Your task to perform on an android device: Open Google Chrome and click the shortcut for Amazon.com Image 0: 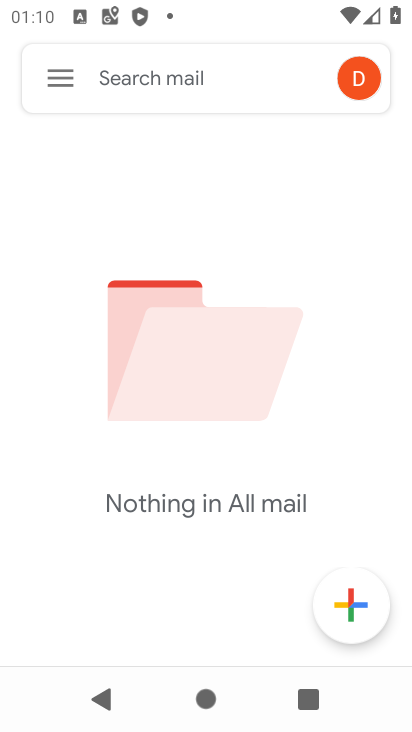
Step 0: press home button
Your task to perform on an android device: Open Google Chrome and click the shortcut for Amazon.com Image 1: 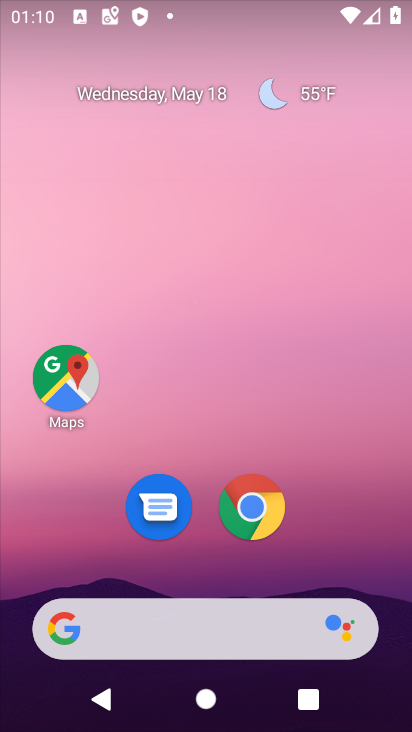
Step 1: click (261, 508)
Your task to perform on an android device: Open Google Chrome and click the shortcut for Amazon.com Image 2: 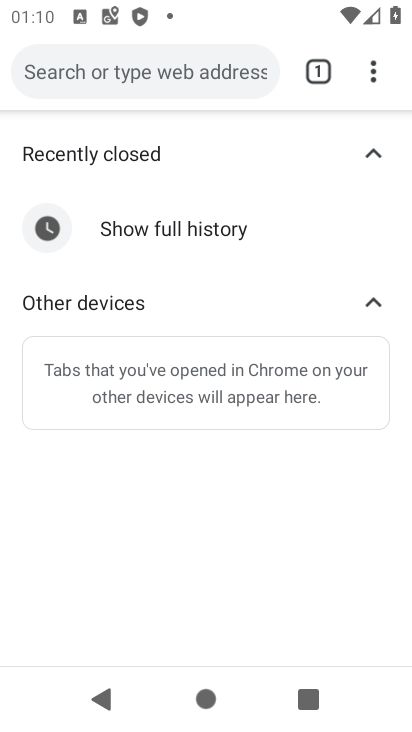
Step 2: click (154, 66)
Your task to perform on an android device: Open Google Chrome and click the shortcut for Amazon.com Image 3: 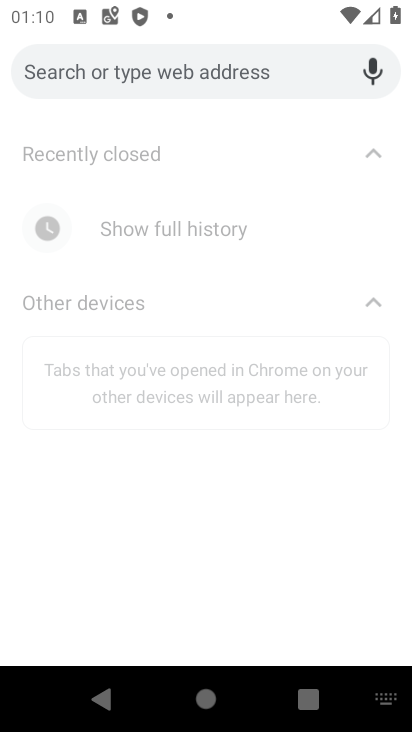
Step 3: press back button
Your task to perform on an android device: Open Google Chrome and click the shortcut for Amazon.com Image 4: 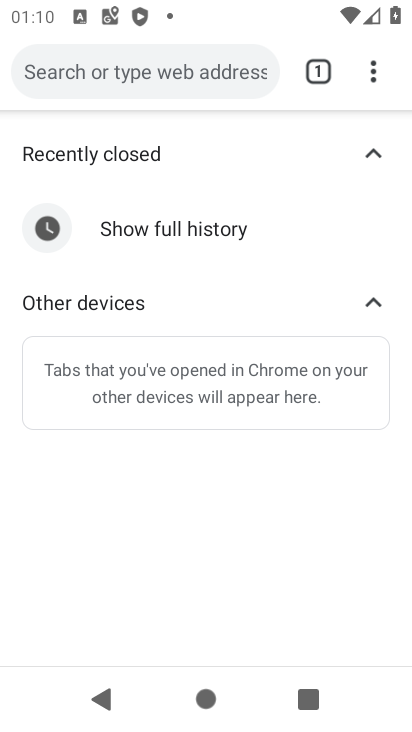
Step 4: click (371, 68)
Your task to perform on an android device: Open Google Chrome and click the shortcut for Amazon.com Image 5: 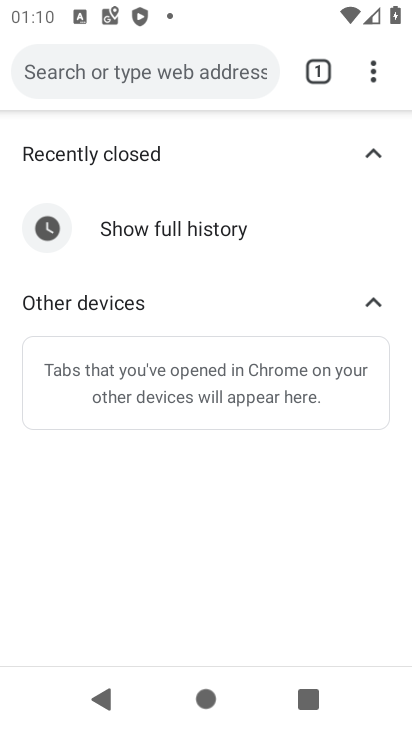
Step 5: click (371, 68)
Your task to perform on an android device: Open Google Chrome and click the shortcut for Amazon.com Image 6: 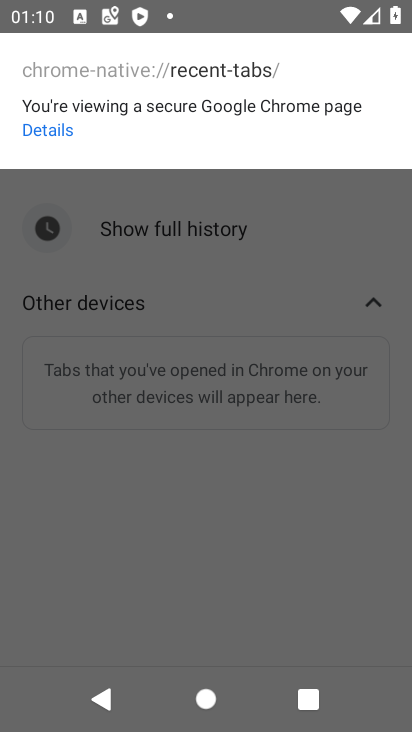
Step 6: click (259, 164)
Your task to perform on an android device: Open Google Chrome and click the shortcut for Amazon.com Image 7: 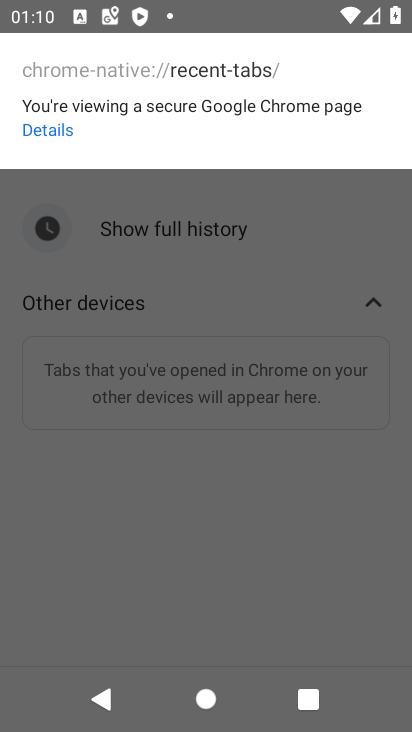
Step 7: click (287, 211)
Your task to perform on an android device: Open Google Chrome and click the shortcut for Amazon.com Image 8: 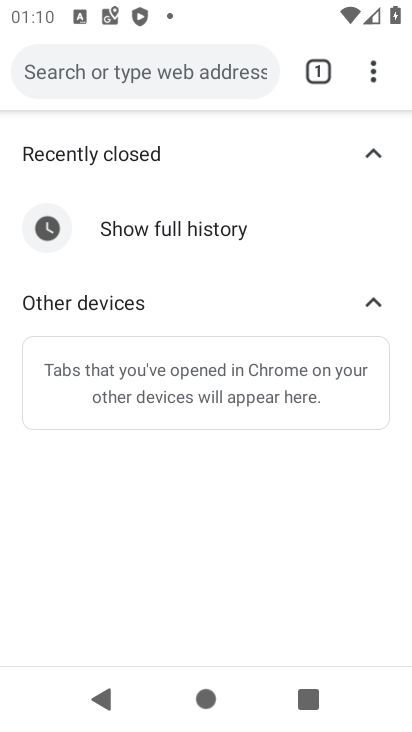
Step 8: click (372, 80)
Your task to perform on an android device: Open Google Chrome and click the shortcut for Amazon.com Image 9: 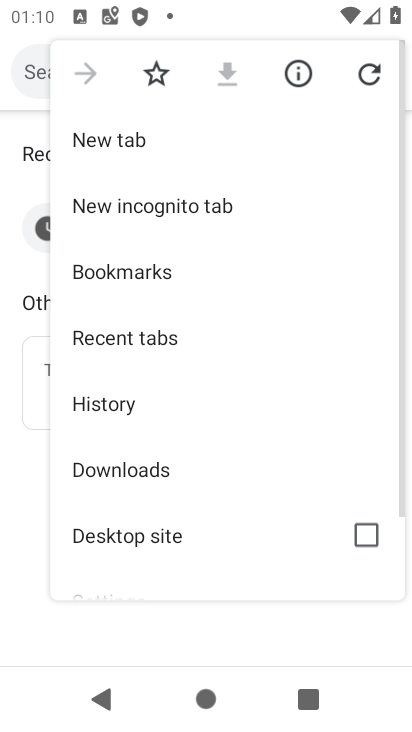
Step 9: click (89, 149)
Your task to perform on an android device: Open Google Chrome and click the shortcut for Amazon.com Image 10: 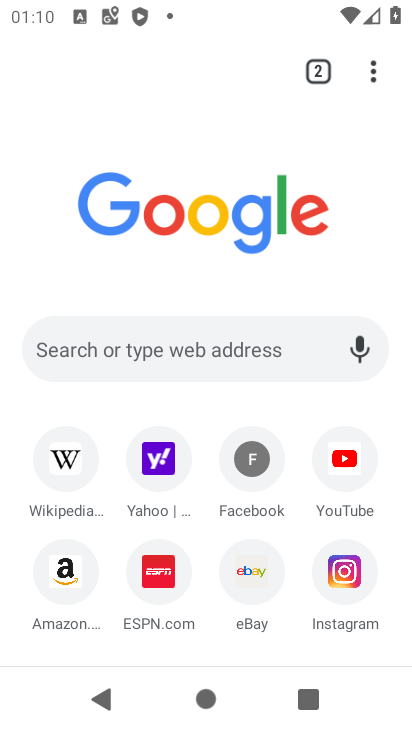
Step 10: click (59, 584)
Your task to perform on an android device: Open Google Chrome and click the shortcut for Amazon.com Image 11: 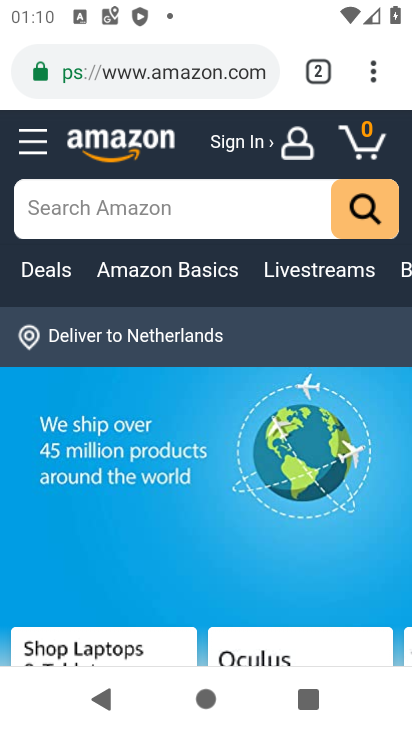
Step 11: task complete